Your task to perform on an android device: change the upload size in google photos Image 0: 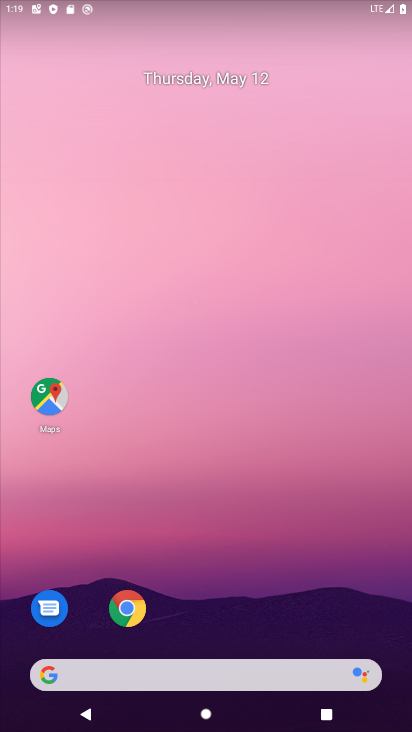
Step 0: drag from (318, 617) to (311, 1)
Your task to perform on an android device: change the upload size in google photos Image 1: 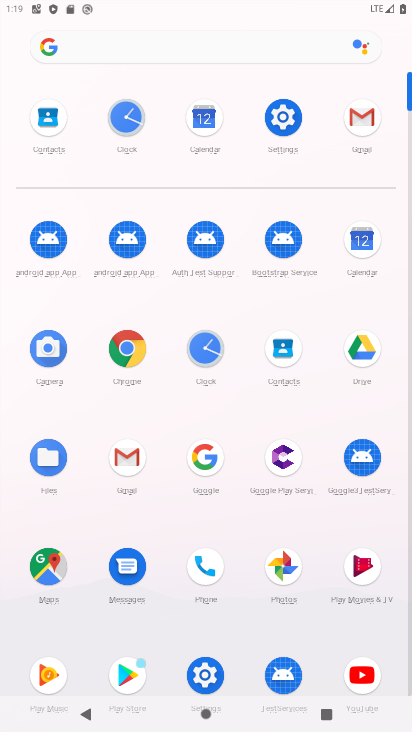
Step 1: click (283, 588)
Your task to perform on an android device: change the upload size in google photos Image 2: 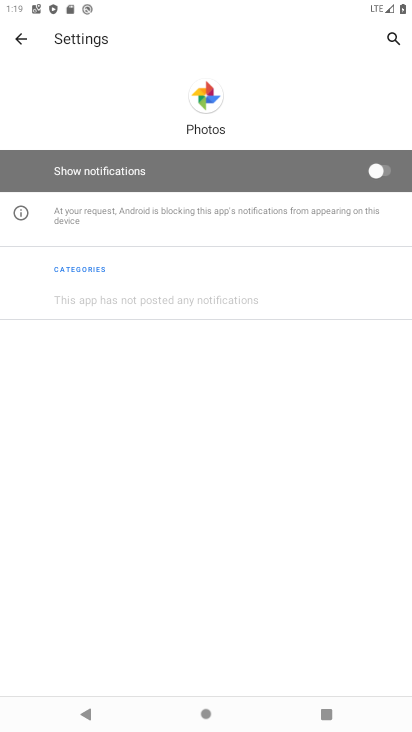
Step 2: click (14, 41)
Your task to perform on an android device: change the upload size in google photos Image 3: 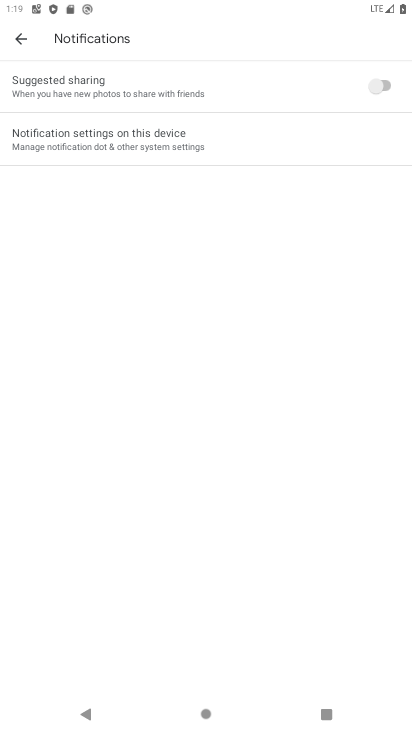
Step 3: click (14, 41)
Your task to perform on an android device: change the upload size in google photos Image 4: 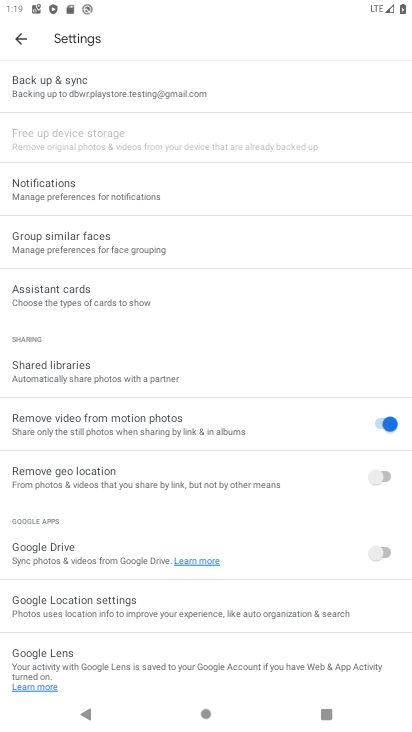
Step 4: click (93, 90)
Your task to perform on an android device: change the upload size in google photos Image 5: 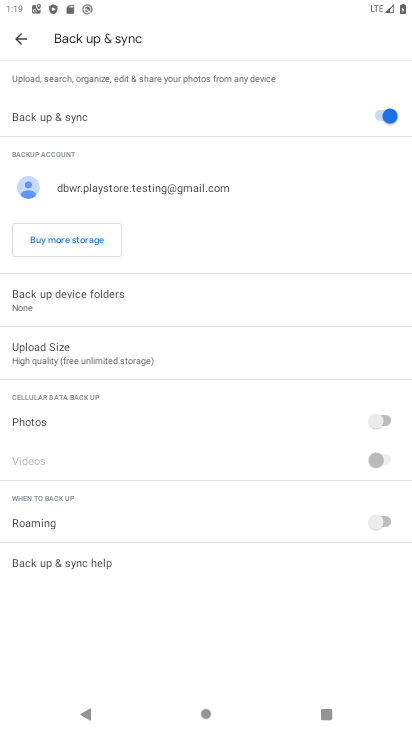
Step 5: click (69, 351)
Your task to perform on an android device: change the upload size in google photos Image 6: 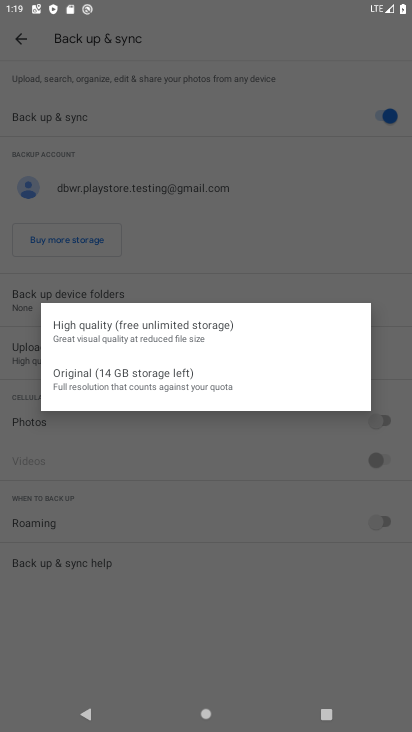
Step 6: click (82, 380)
Your task to perform on an android device: change the upload size in google photos Image 7: 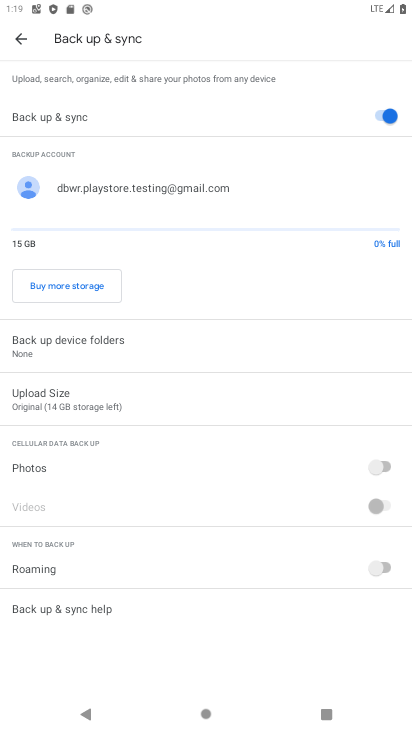
Step 7: task complete